Your task to perform on an android device: What's the weather today? Image 0: 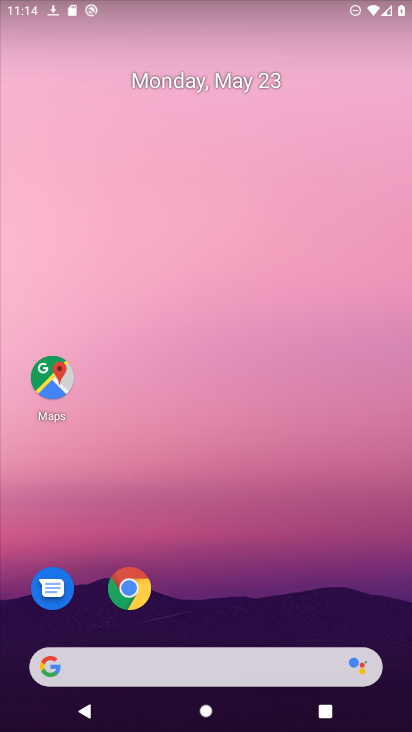
Step 0: click (133, 594)
Your task to perform on an android device: What's the weather today? Image 1: 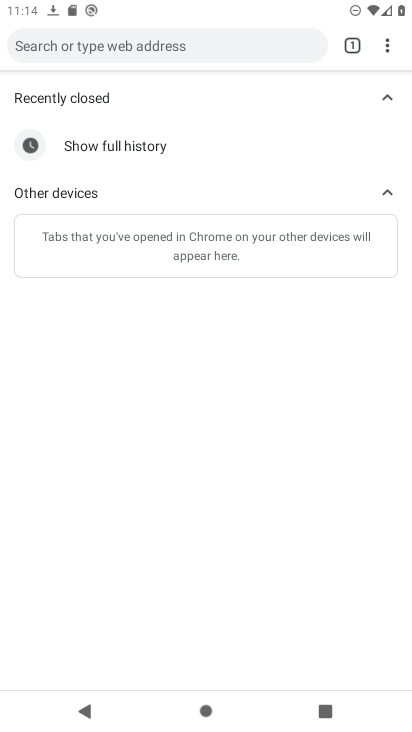
Step 1: click (180, 45)
Your task to perform on an android device: What's the weather today? Image 2: 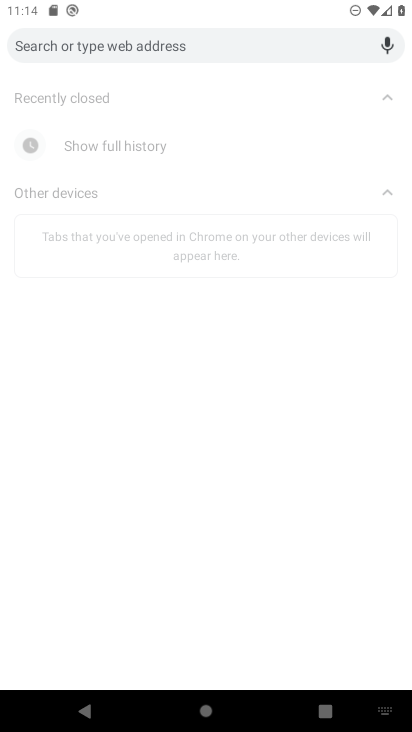
Step 2: type "weather"
Your task to perform on an android device: What's the weather today? Image 3: 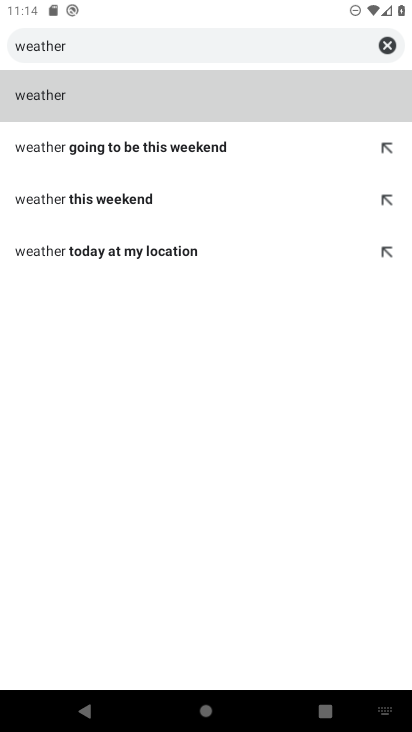
Step 3: click (60, 84)
Your task to perform on an android device: What's the weather today? Image 4: 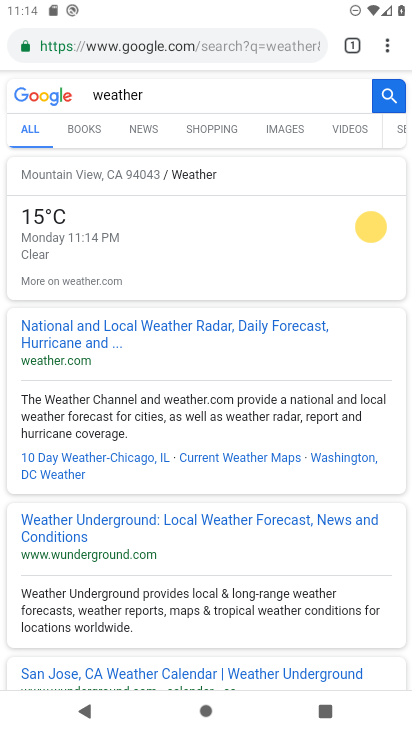
Step 4: task complete